Your task to perform on an android device: Go to settings Image 0: 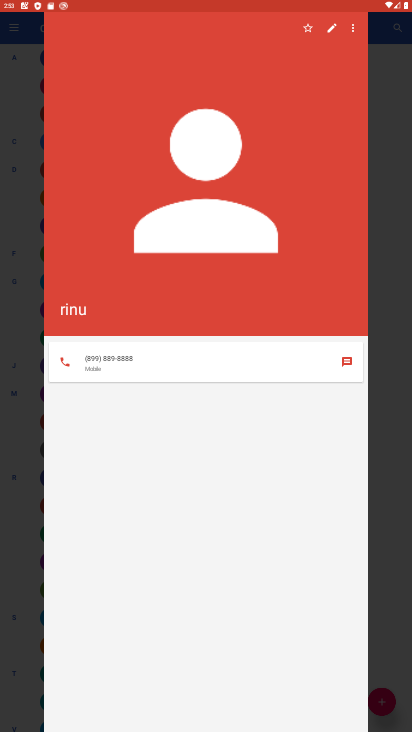
Step 0: press home button
Your task to perform on an android device: Go to settings Image 1: 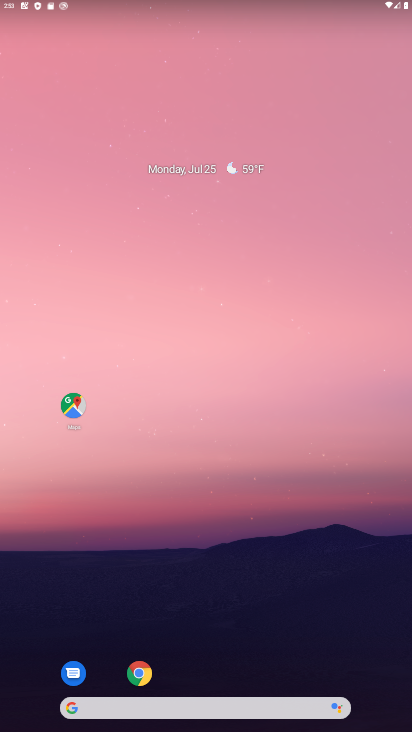
Step 1: drag from (204, 598) to (223, 152)
Your task to perform on an android device: Go to settings Image 2: 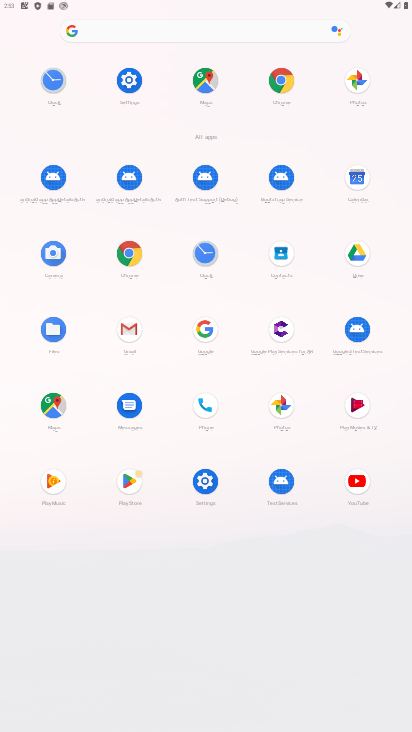
Step 2: click (129, 80)
Your task to perform on an android device: Go to settings Image 3: 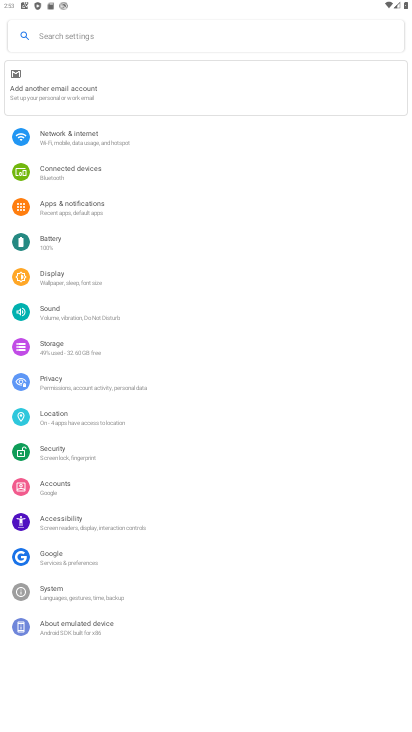
Step 3: task complete